Your task to perform on an android device: Open calendar and show me the fourth week of next month Image 0: 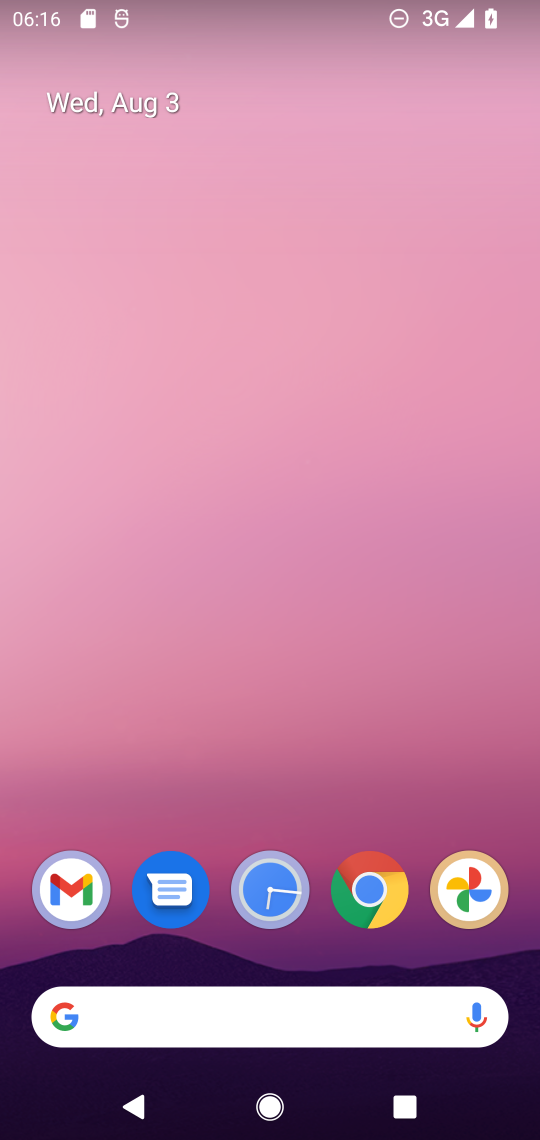
Step 0: drag from (297, 786) to (287, 196)
Your task to perform on an android device: Open calendar and show me the fourth week of next month Image 1: 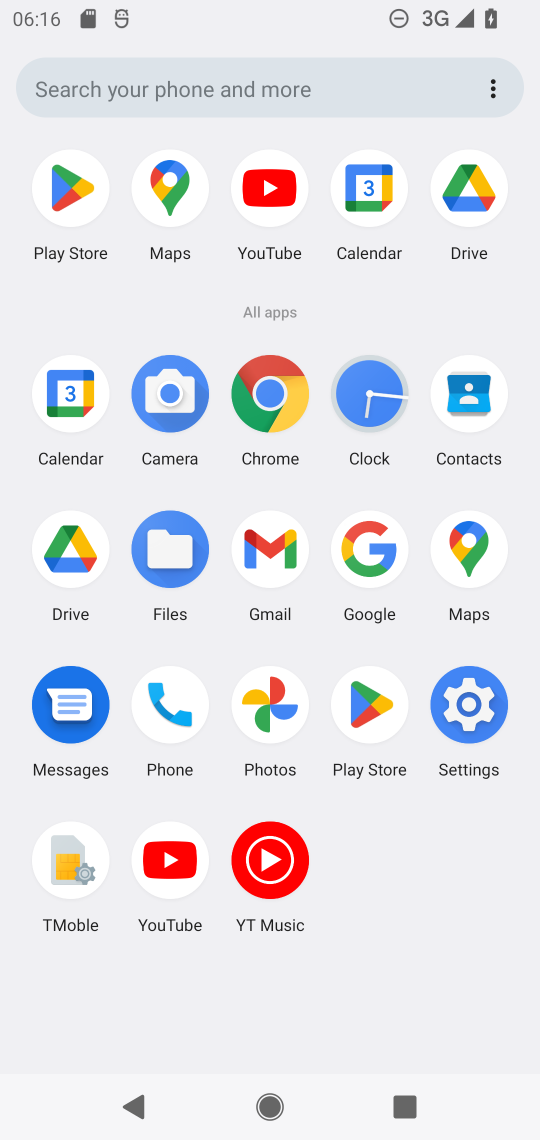
Step 1: click (356, 200)
Your task to perform on an android device: Open calendar and show me the fourth week of next month Image 2: 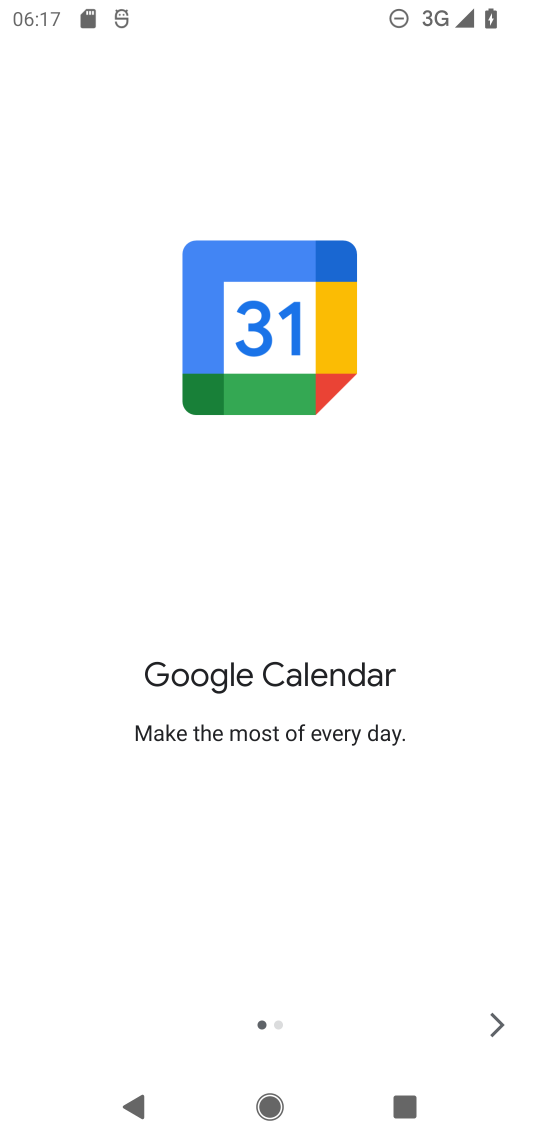
Step 2: click (496, 1021)
Your task to perform on an android device: Open calendar and show me the fourth week of next month Image 3: 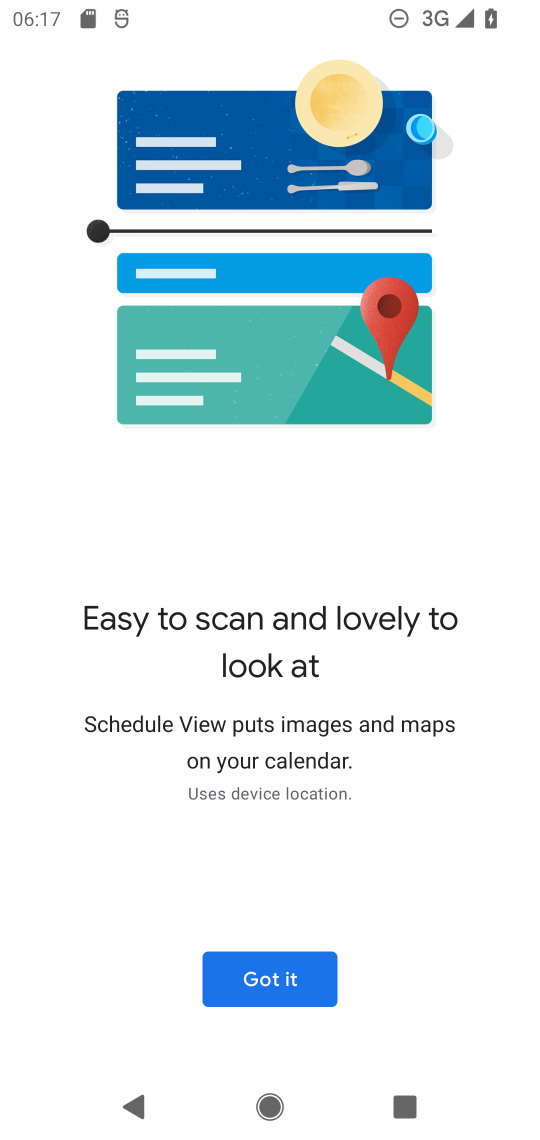
Step 3: click (319, 981)
Your task to perform on an android device: Open calendar and show me the fourth week of next month Image 4: 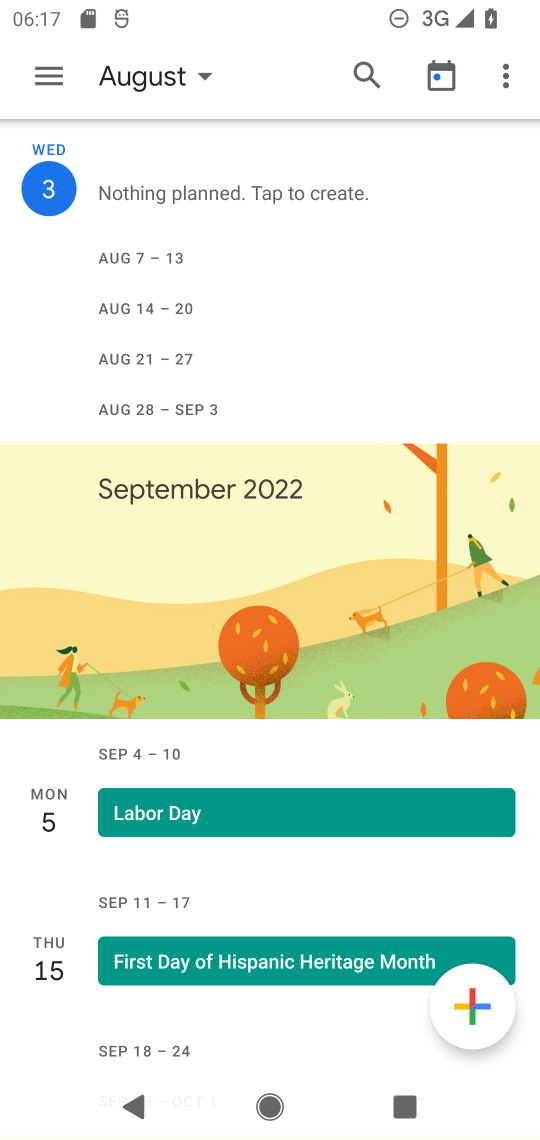
Step 4: click (36, 72)
Your task to perform on an android device: Open calendar and show me the fourth week of next month Image 5: 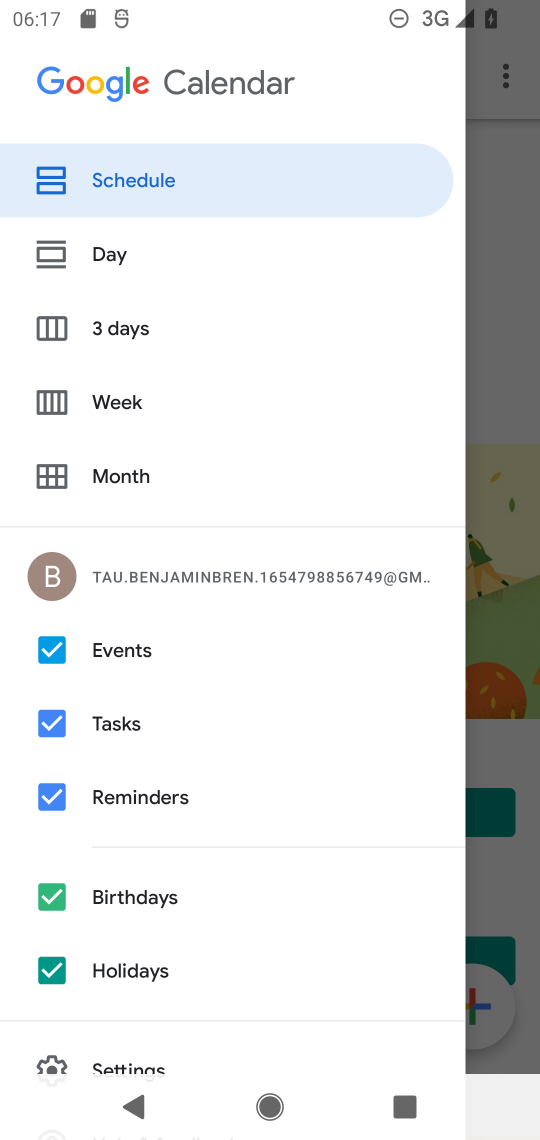
Step 5: click (57, 481)
Your task to perform on an android device: Open calendar and show me the fourth week of next month Image 6: 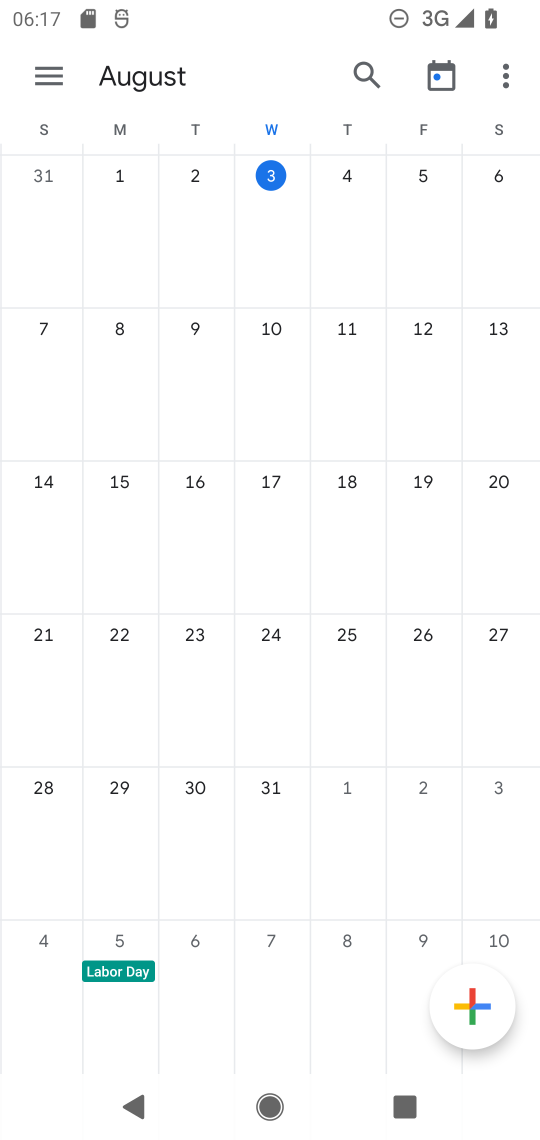
Step 6: drag from (485, 511) to (0, 639)
Your task to perform on an android device: Open calendar and show me the fourth week of next month Image 7: 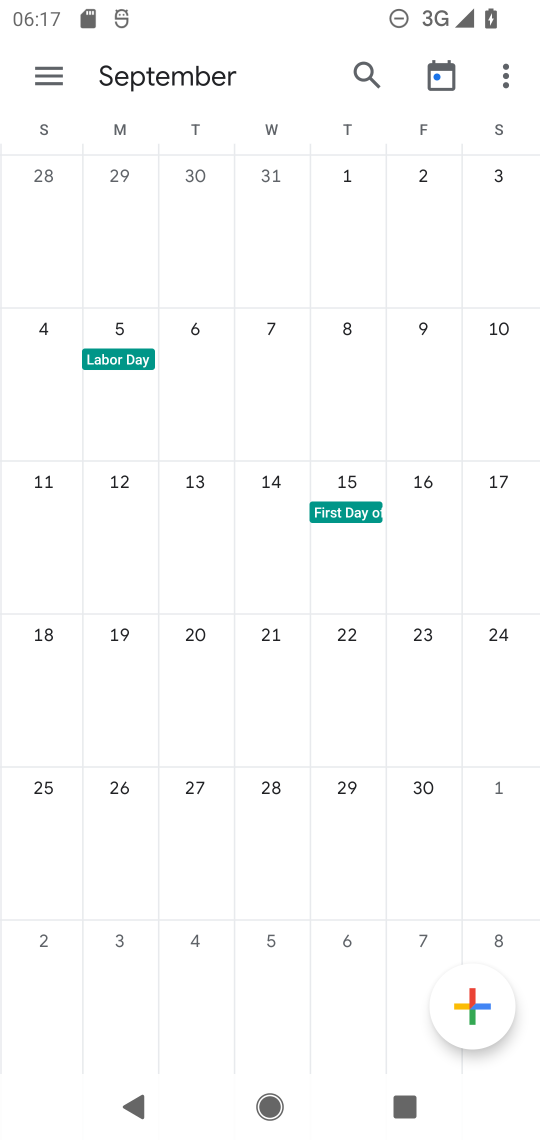
Step 7: click (48, 789)
Your task to perform on an android device: Open calendar and show me the fourth week of next month Image 8: 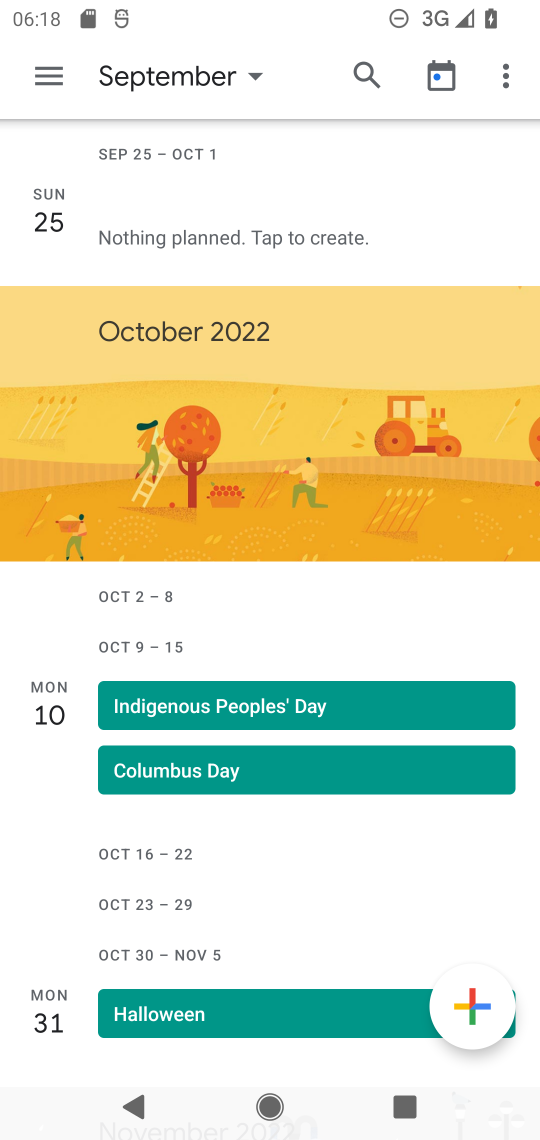
Step 8: click (56, 83)
Your task to perform on an android device: Open calendar and show me the fourth week of next month Image 9: 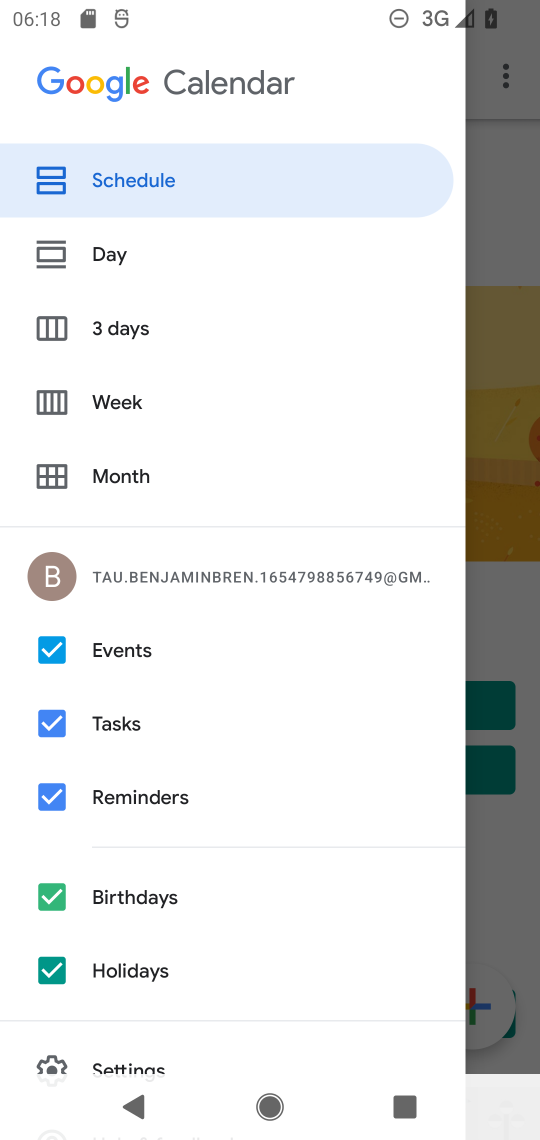
Step 9: click (52, 396)
Your task to perform on an android device: Open calendar and show me the fourth week of next month Image 10: 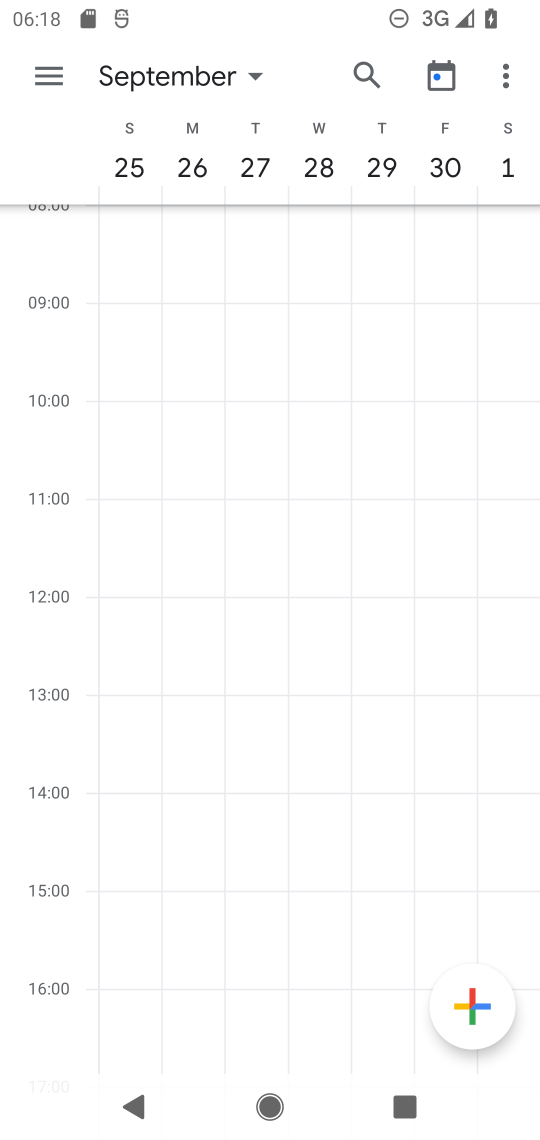
Step 10: task complete